Your task to perform on an android device: choose inbox layout in the gmail app Image 0: 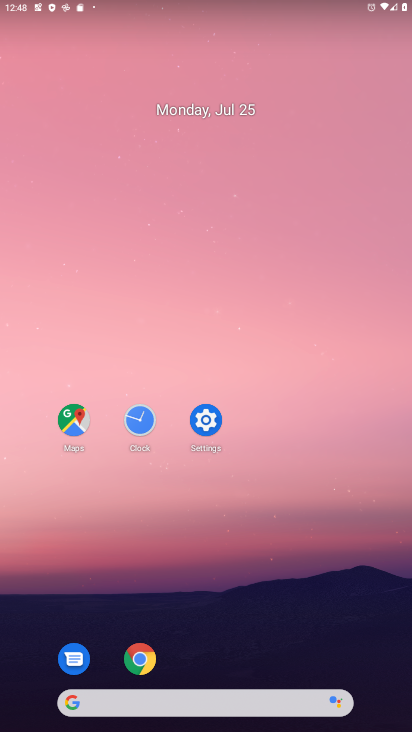
Step 0: drag from (395, 720) to (329, 280)
Your task to perform on an android device: choose inbox layout in the gmail app Image 1: 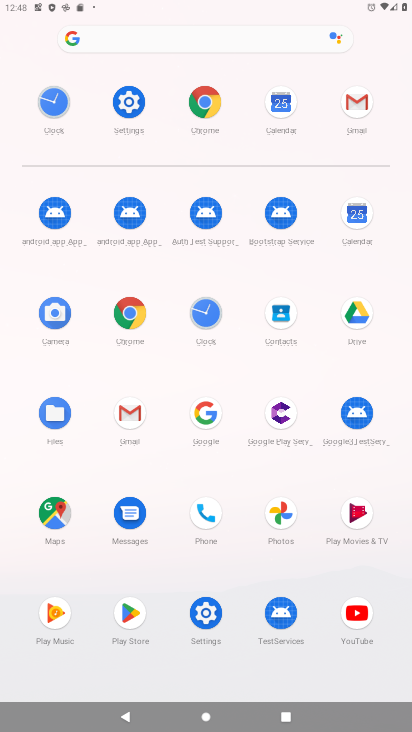
Step 1: click (131, 422)
Your task to perform on an android device: choose inbox layout in the gmail app Image 2: 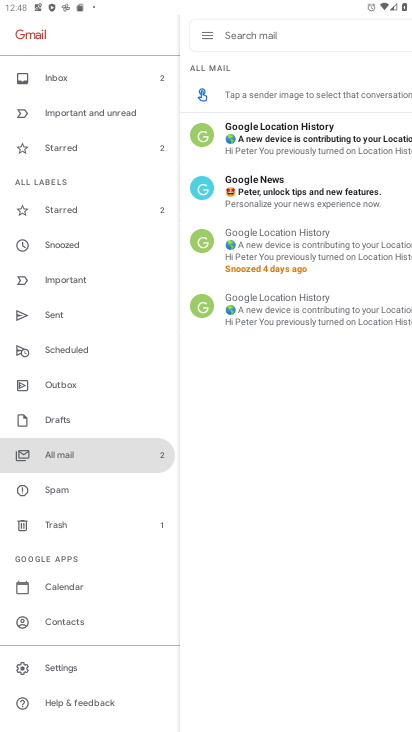
Step 2: click (63, 662)
Your task to perform on an android device: choose inbox layout in the gmail app Image 3: 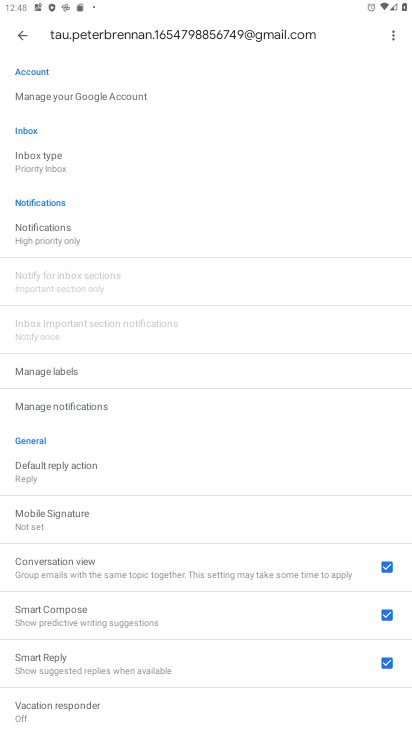
Step 3: click (33, 159)
Your task to perform on an android device: choose inbox layout in the gmail app Image 4: 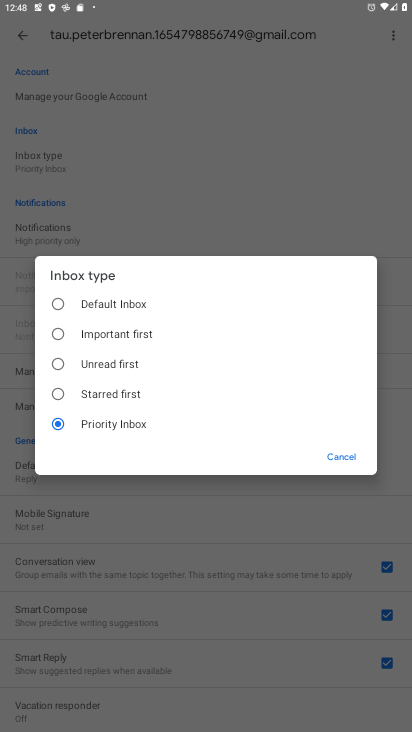
Step 4: click (57, 296)
Your task to perform on an android device: choose inbox layout in the gmail app Image 5: 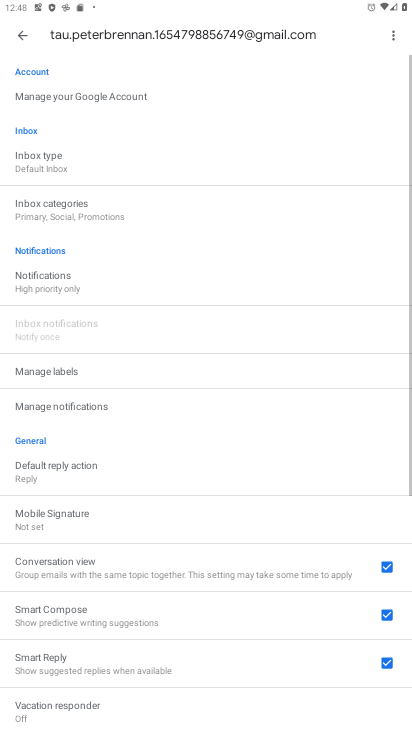
Step 5: task complete